Your task to perform on an android device: open app "Instagram" (install if not already installed) Image 0: 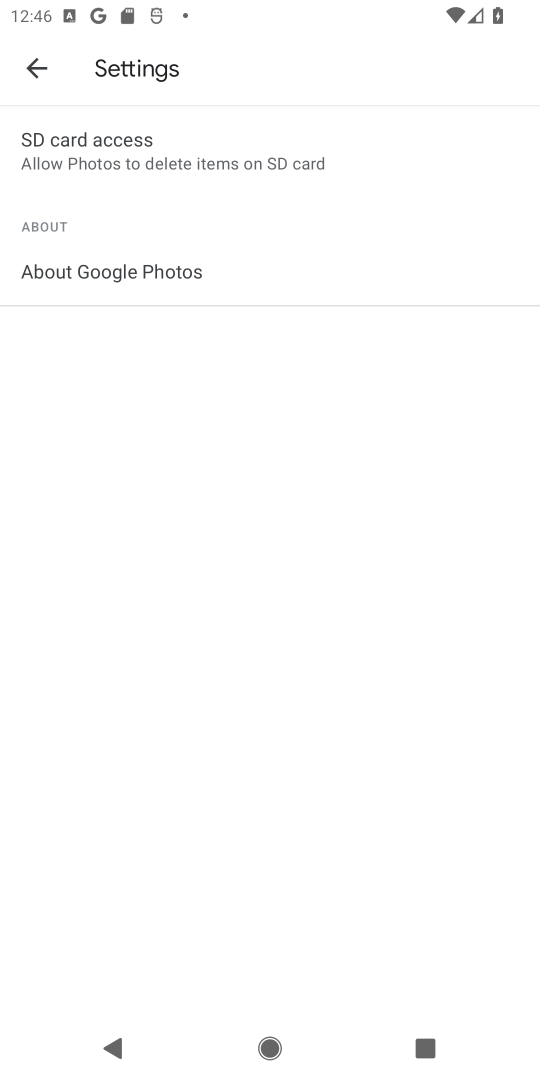
Step 0: press home button
Your task to perform on an android device: open app "Instagram" (install if not already installed) Image 1: 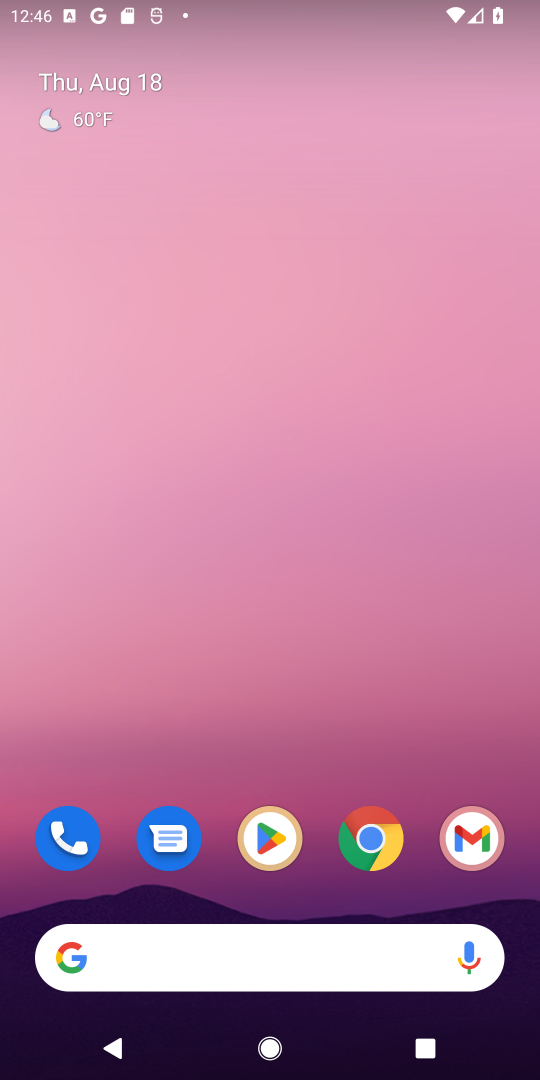
Step 1: click (265, 840)
Your task to perform on an android device: open app "Instagram" (install if not already installed) Image 2: 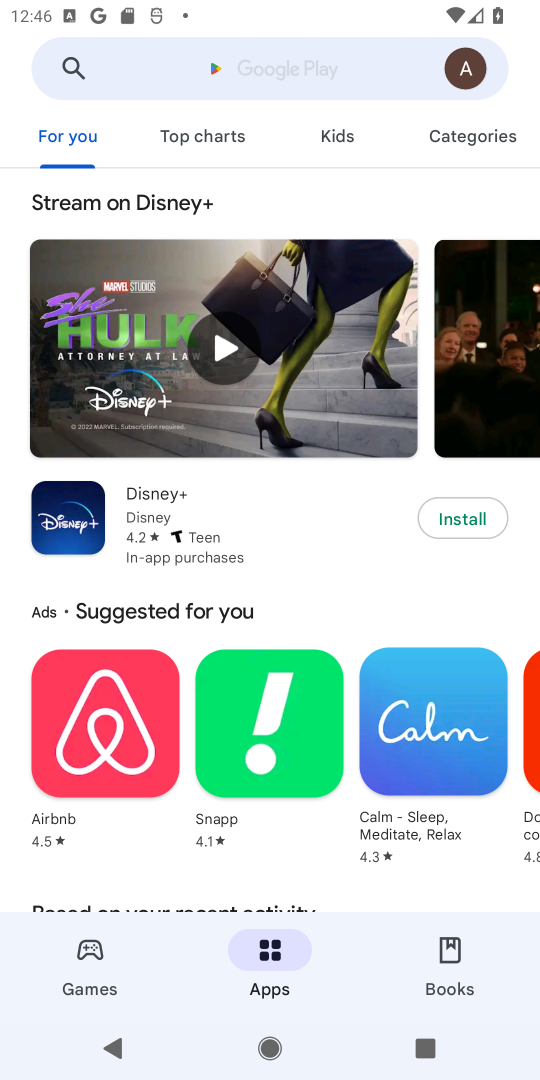
Step 2: click (286, 67)
Your task to perform on an android device: open app "Instagram" (install if not already installed) Image 3: 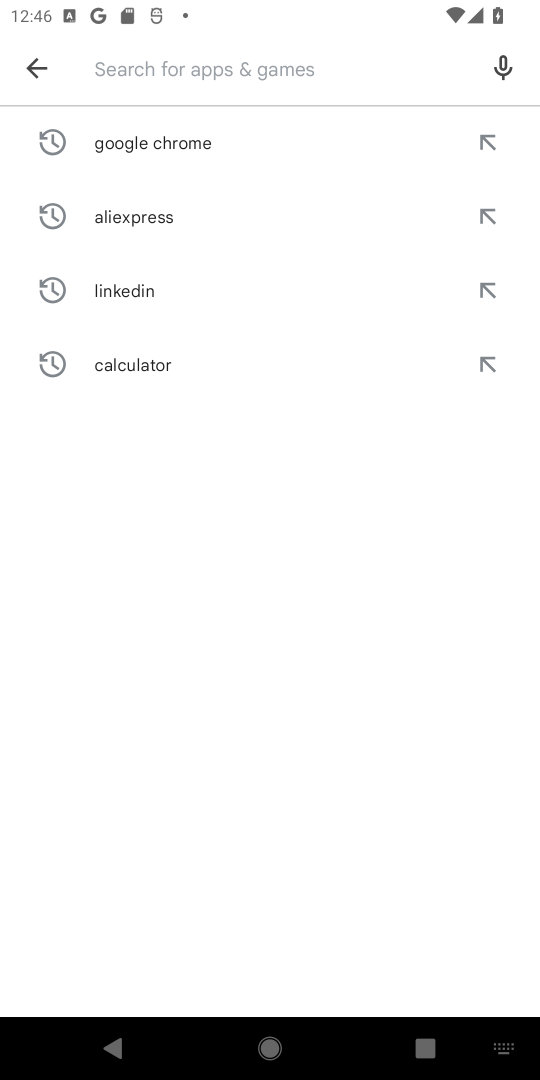
Step 3: type "Instagram"
Your task to perform on an android device: open app "Instagram" (install if not already installed) Image 4: 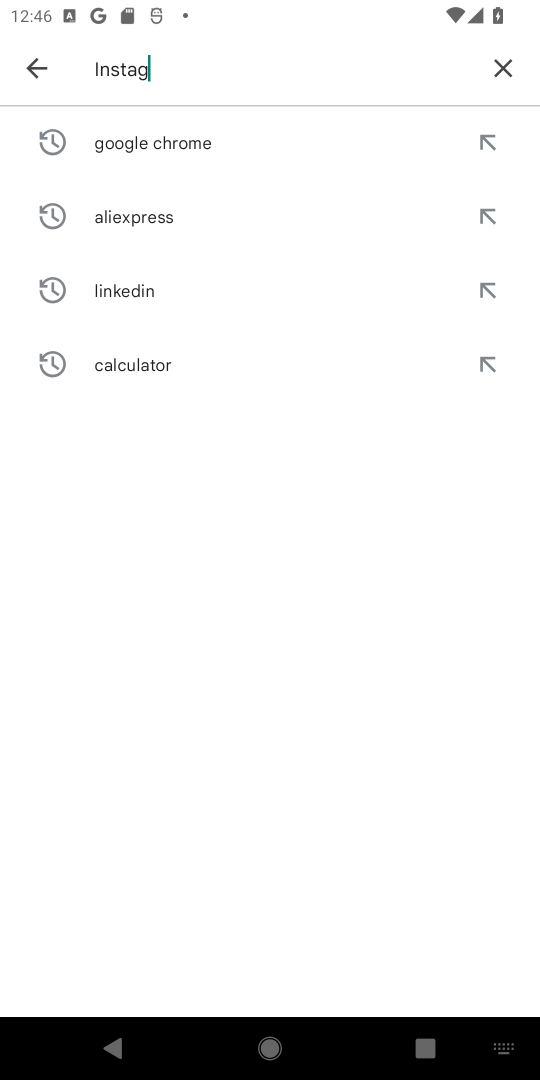
Step 4: type ""
Your task to perform on an android device: open app "Instagram" (install if not already installed) Image 5: 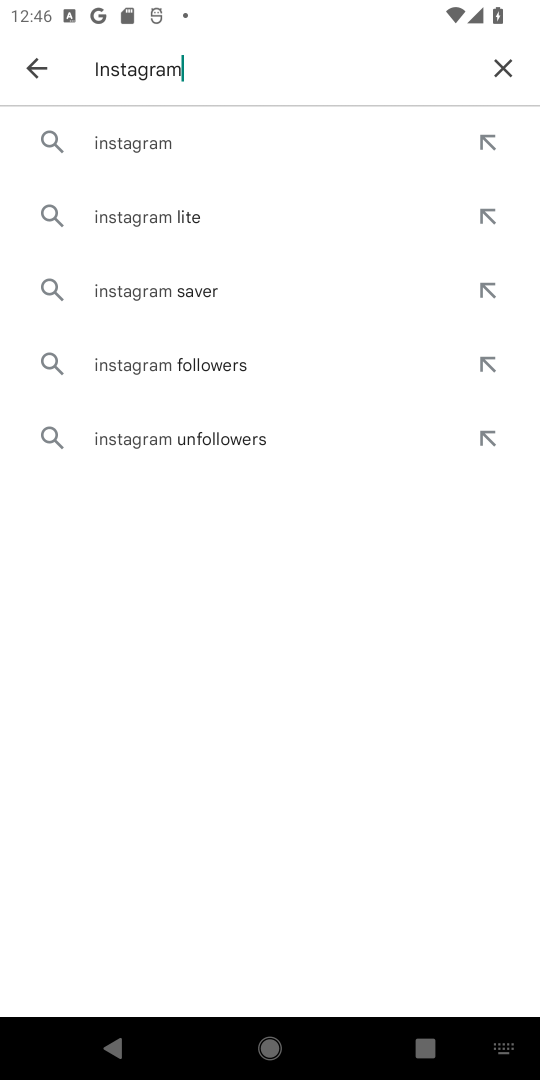
Step 5: click (165, 143)
Your task to perform on an android device: open app "Instagram" (install if not already installed) Image 6: 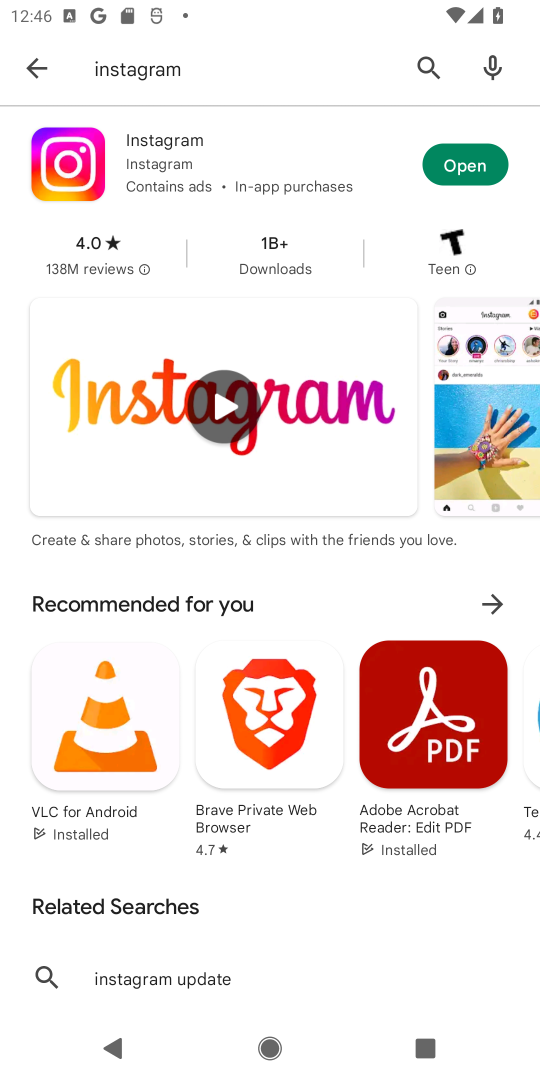
Step 6: click (490, 160)
Your task to perform on an android device: open app "Instagram" (install if not already installed) Image 7: 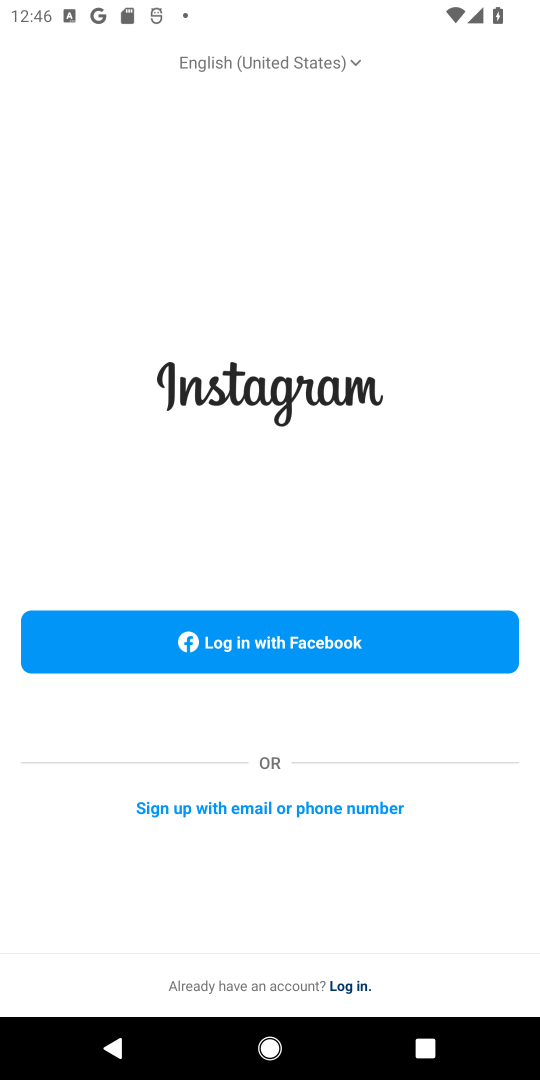
Step 7: task complete